Your task to perform on an android device: create a new album in the google photos Image 0: 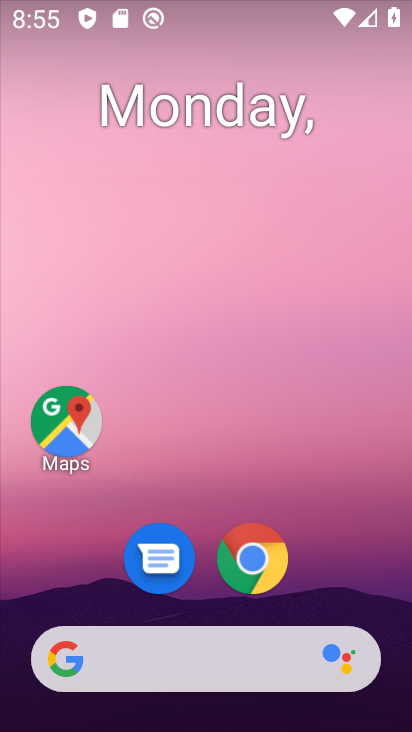
Step 0: click (255, 554)
Your task to perform on an android device: create a new album in the google photos Image 1: 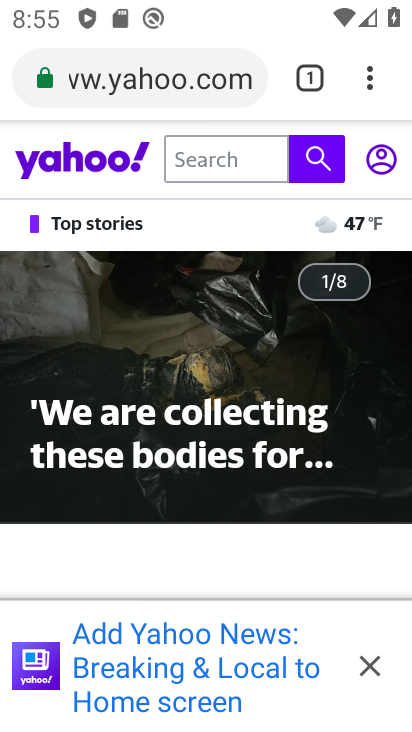
Step 1: press home button
Your task to perform on an android device: create a new album in the google photos Image 2: 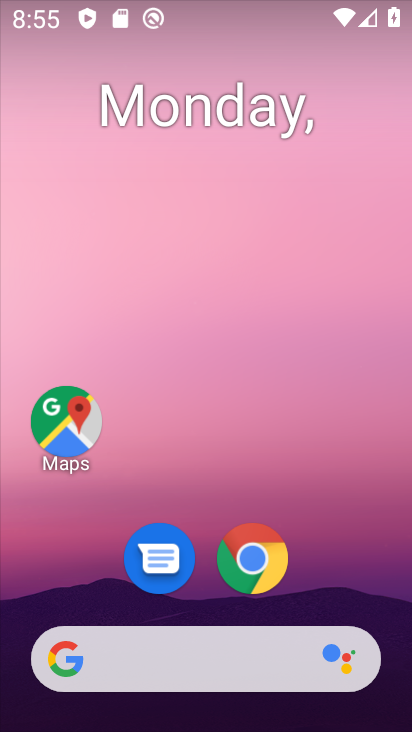
Step 2: drag from (325, 575) to (370, 87)
Your task to perform on an android device: create a new album in the google photos Image 3: 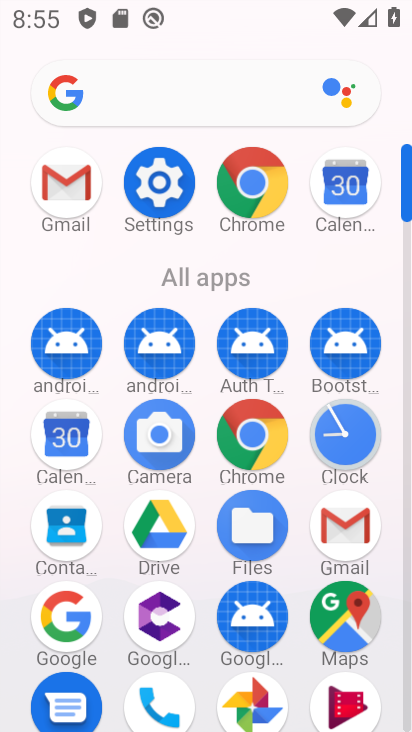
Step 3: drag from (286, 322) to (329, 101)
Your task to perform on an android device: create a new album in the google photos Image 4: 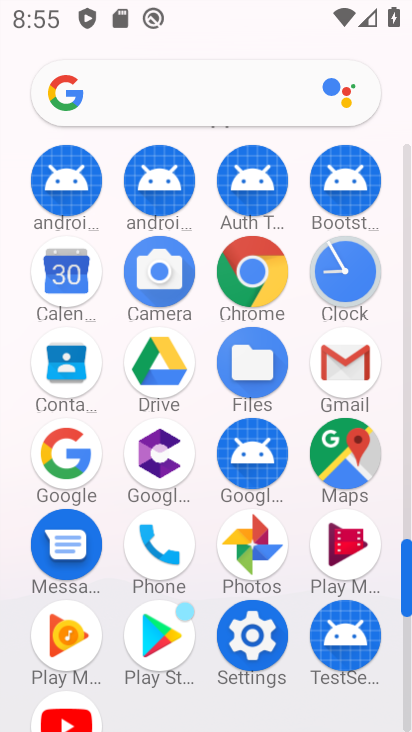
Step 4: click (252, 540)
Your task to perform on an android device: create a new album in the google photos Image 5: 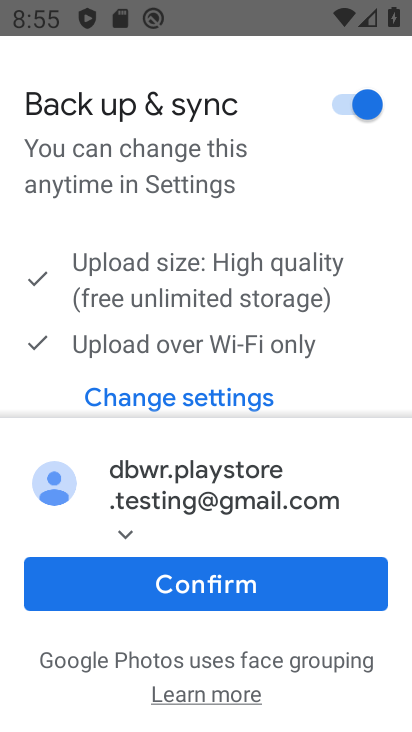
Step 5: click (339, 597)
Your task to perform on an android device: create a new album in the google photos Image 6: 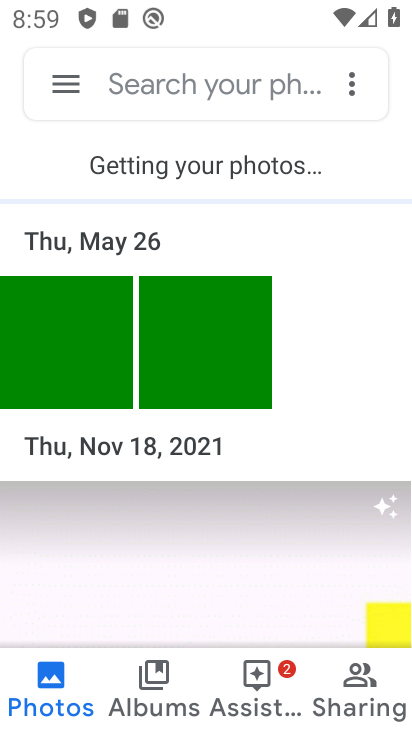
Step 6: click (110, 325)
Your task to perform on an android device: create a new album in the google photos Image 7: 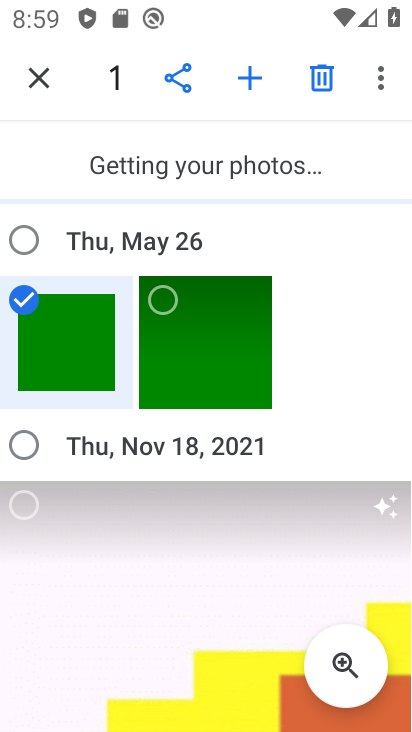
Step 7: click (248, 346)
Your task to perform on an android device: create a new album in the google photos Image 8: 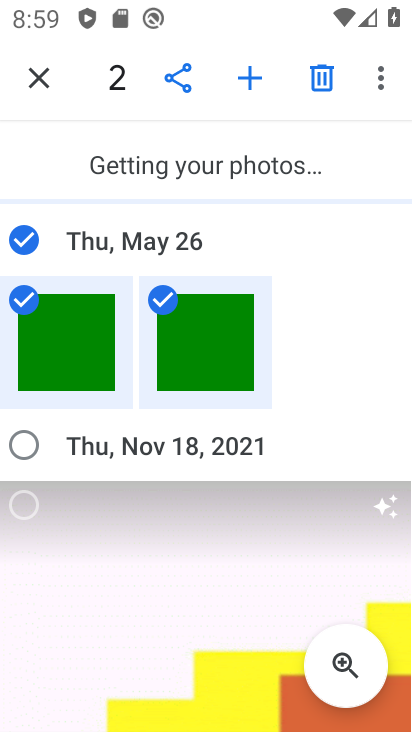
Step 8: click (248, 64)
Your task to perform on an android device: create a new album in the google photos Image 9: 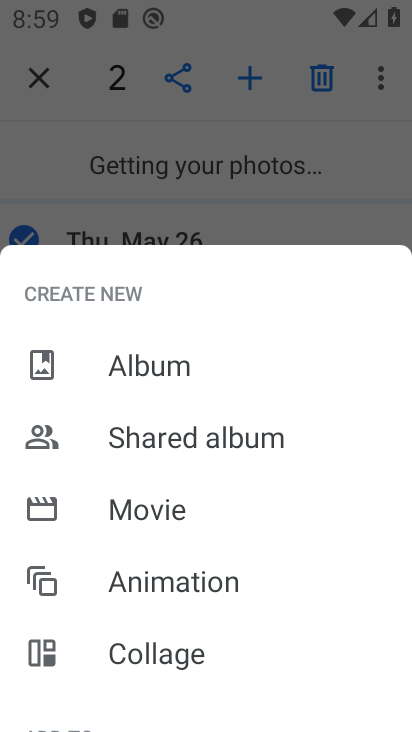
Step 9: click (176, 358)
Your task to perform on an android device: create a new album in the google photos Image 10: 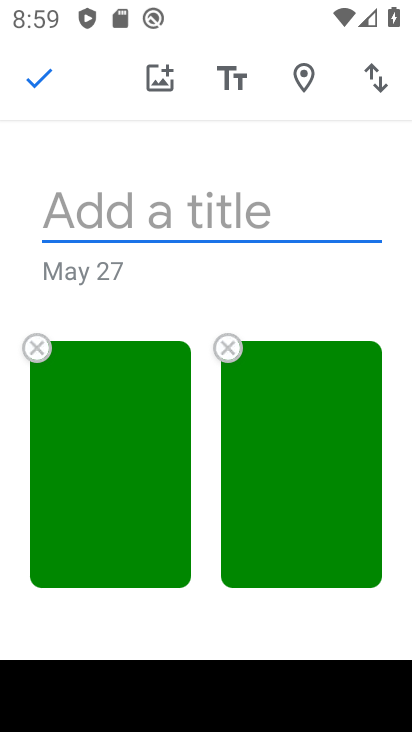
Step 10: type "vvv"
Your task to perform on an android device: create a new album in the google photos Image 11: 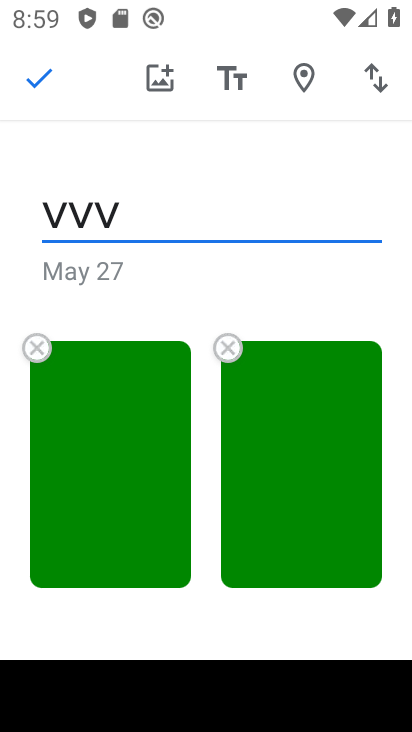
Step 11: click (31, 70)
Your task to perform on an android device: create a new album in the google photos Image 12: 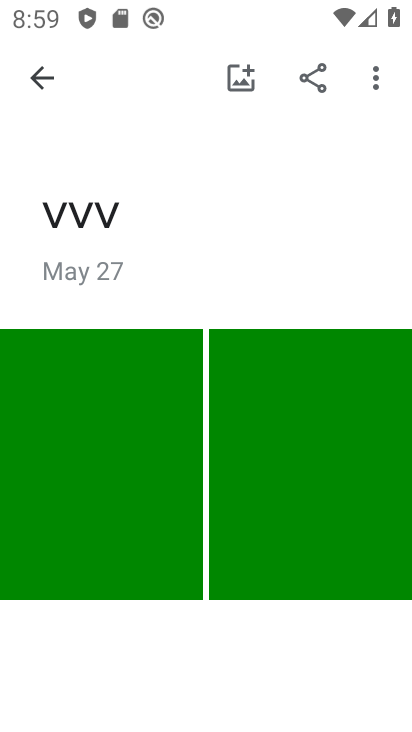
Step 12: task complete